Your task to perform on an android device: Open wifi settings Image 0: 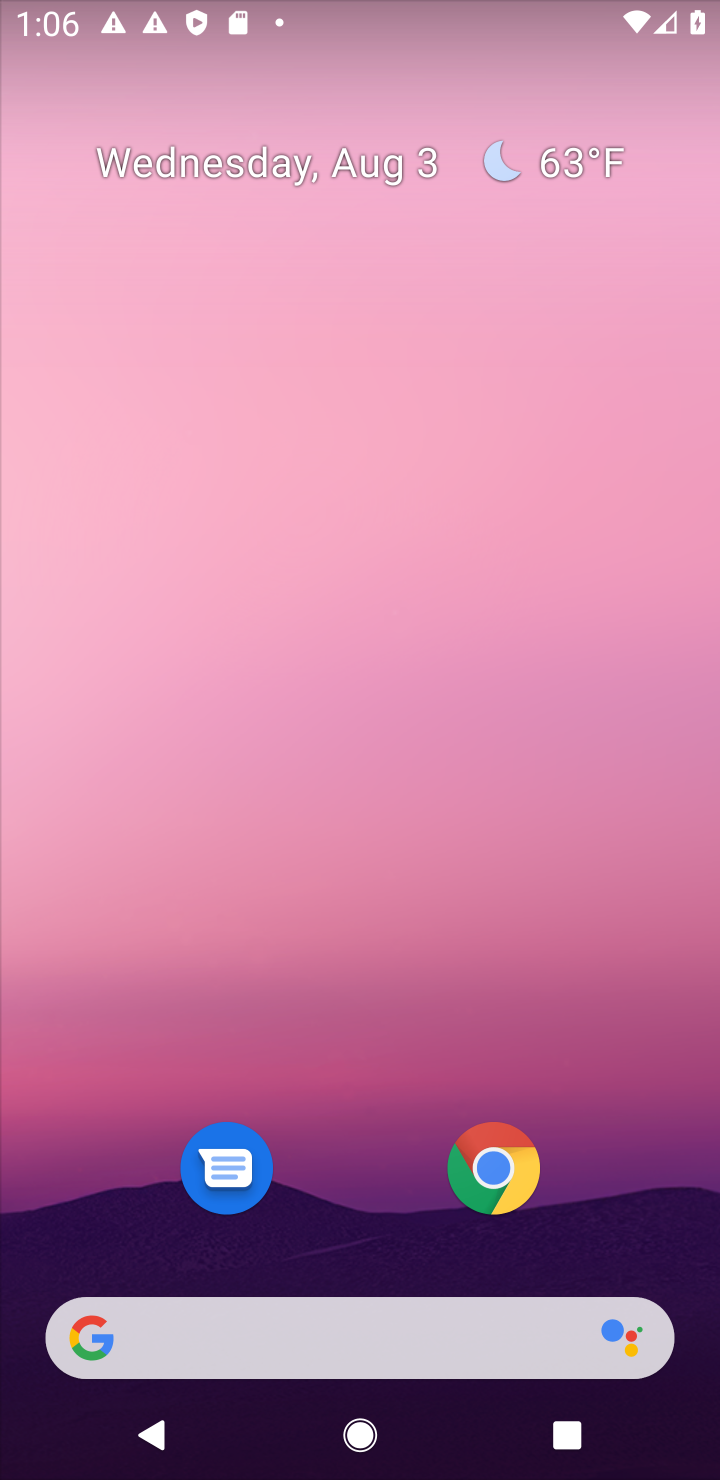
Step 0: press home button
Your task to perform on an android device: Open wifi settings Image 1: 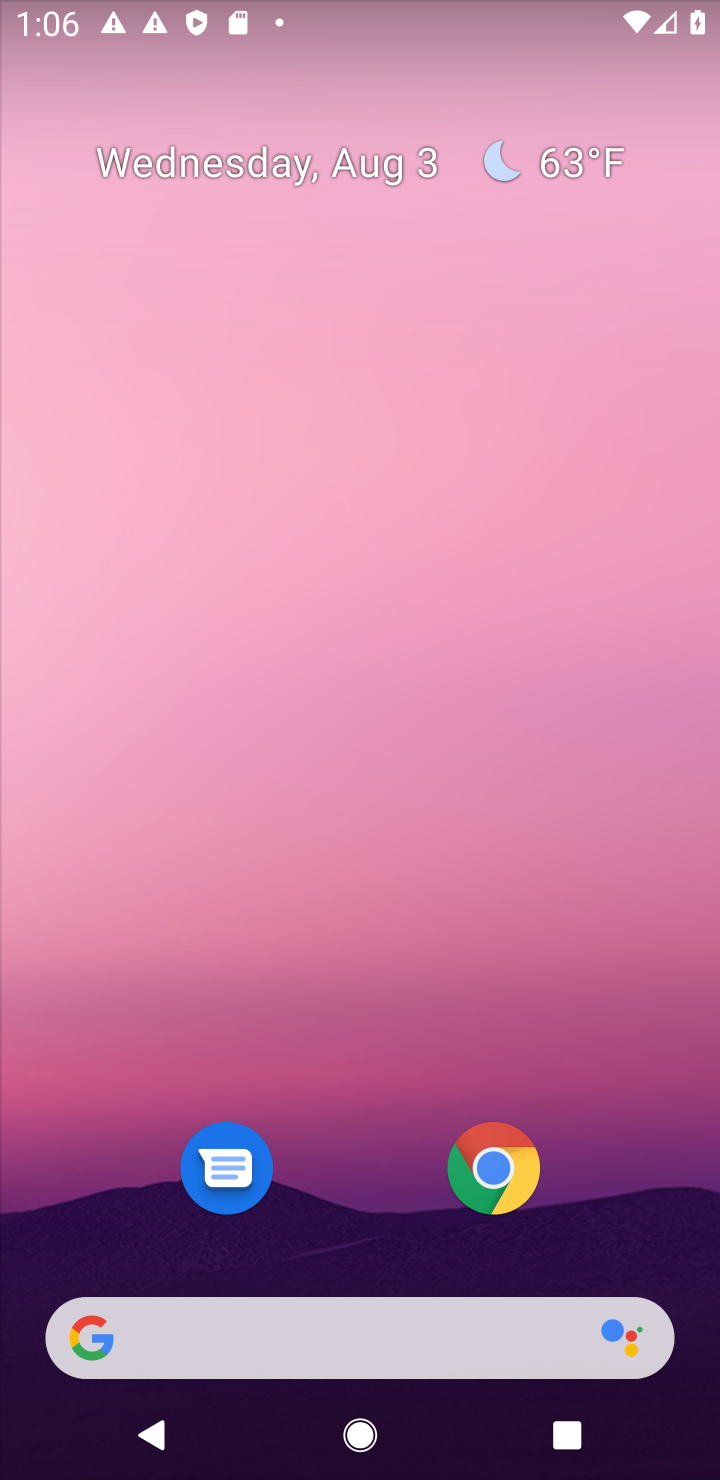
Step 1: drag from (652, 1208) to (633, 169)
Your task to perform on an android device: Open wifi settings Image 2: 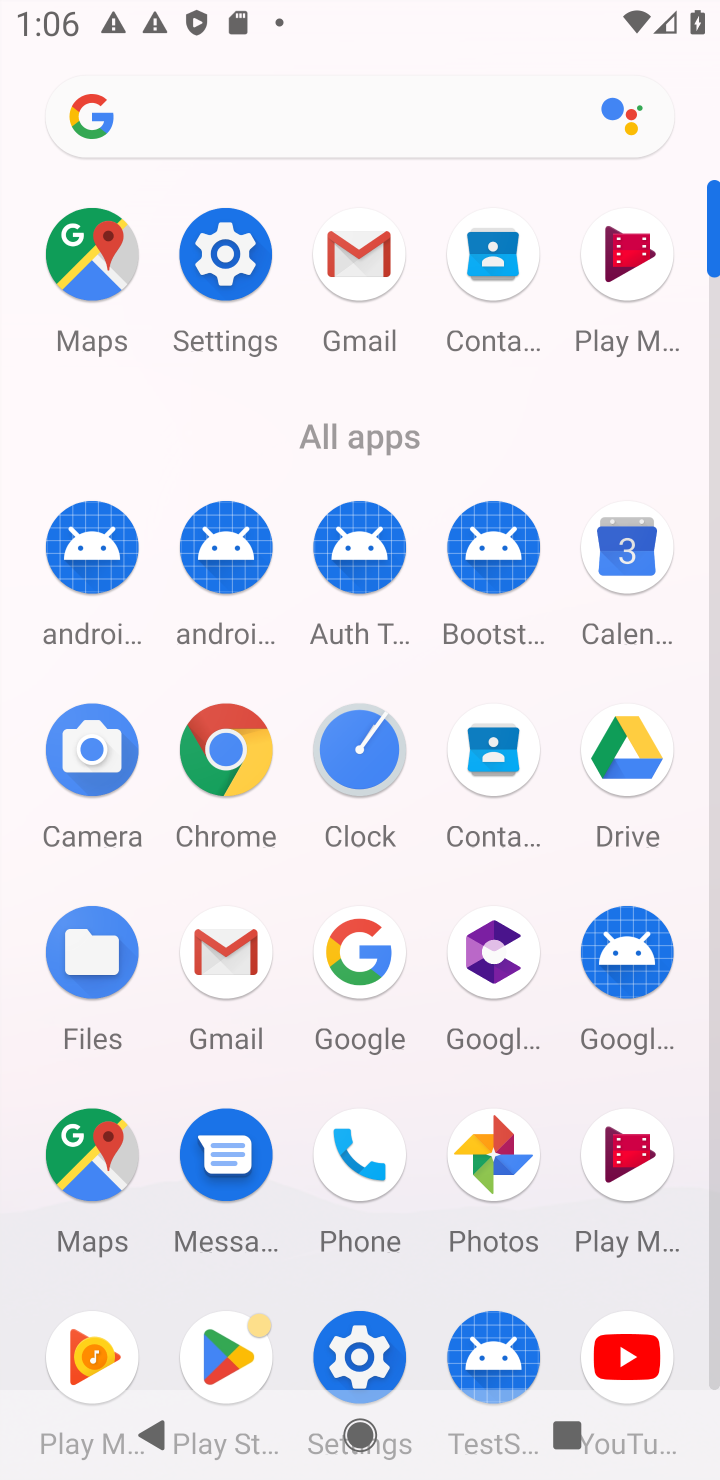
Step 2: click (355, 1356)
Your task to perform on an android device: Open wifi settings Image 3: 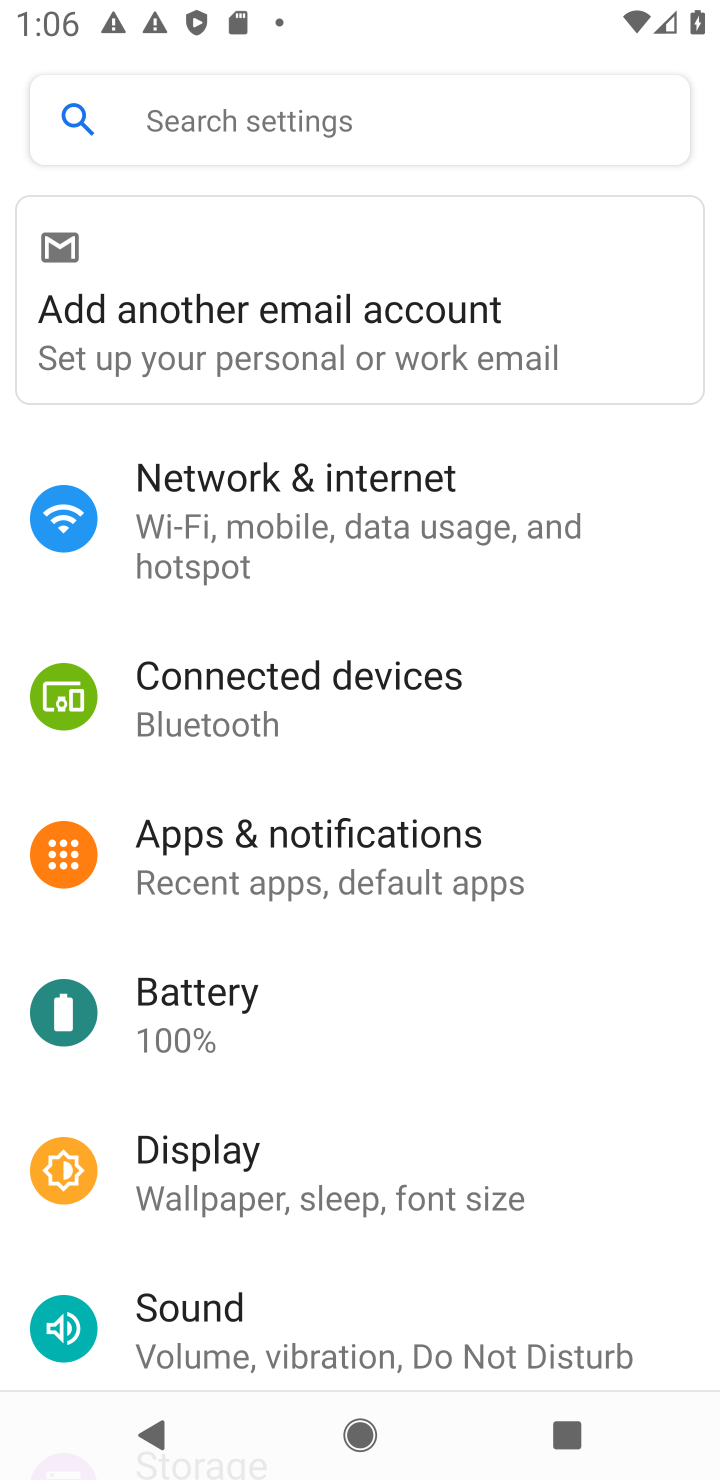
Step 3: click (326, 533)
Your task to perform on an android device: Open wifi settings Image 4: 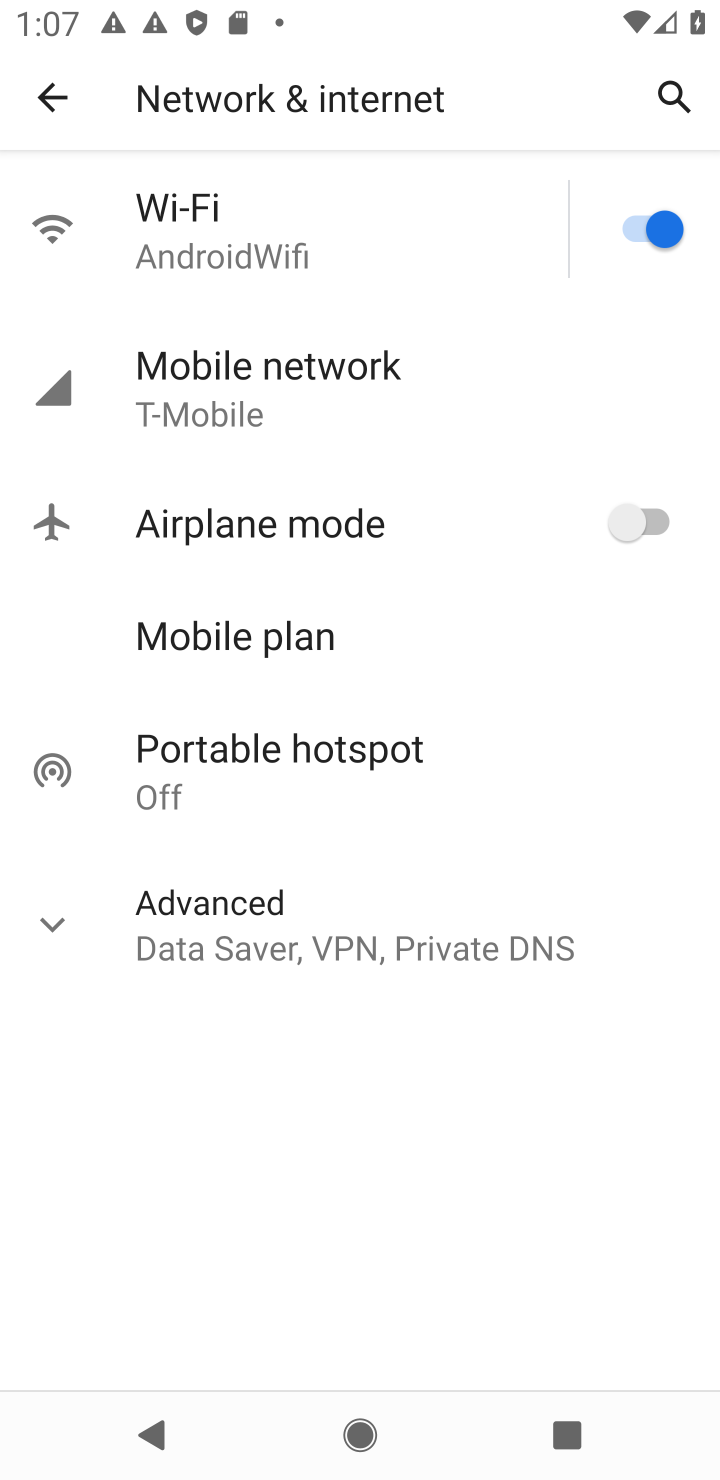
Step 4: click (176, 181)
Your task to perform on an android device: Open wifi settings Image 5: 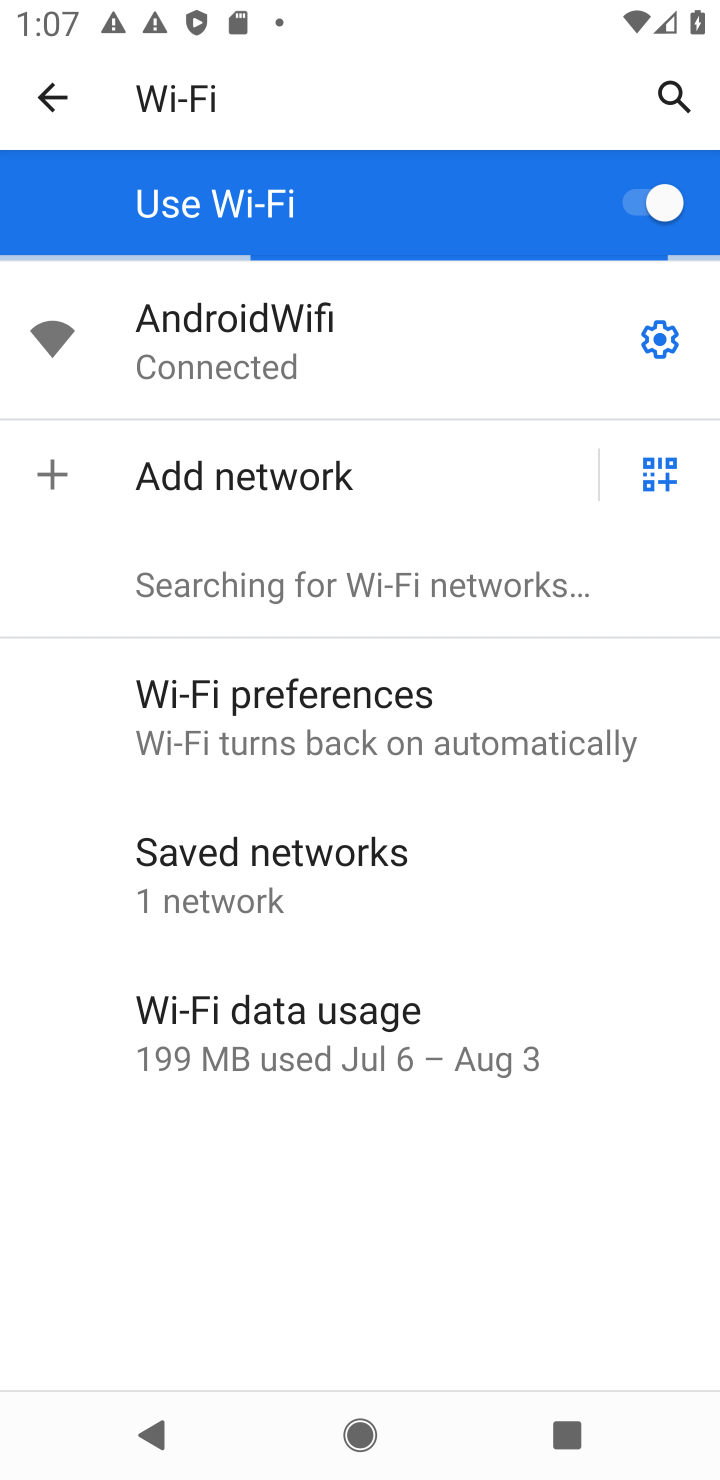
Step 5: task complete